Your task to perform on an android device: Open Wikipedia Image 0: 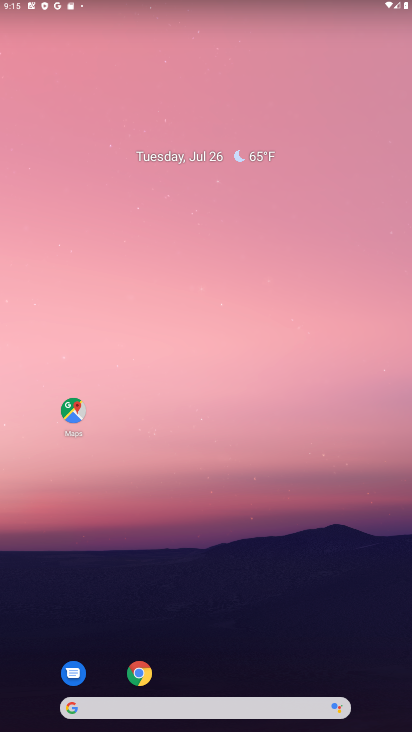
Step 0: click (143, 677)
Your task to perform on an android device: Open Wikipedia Image 1: 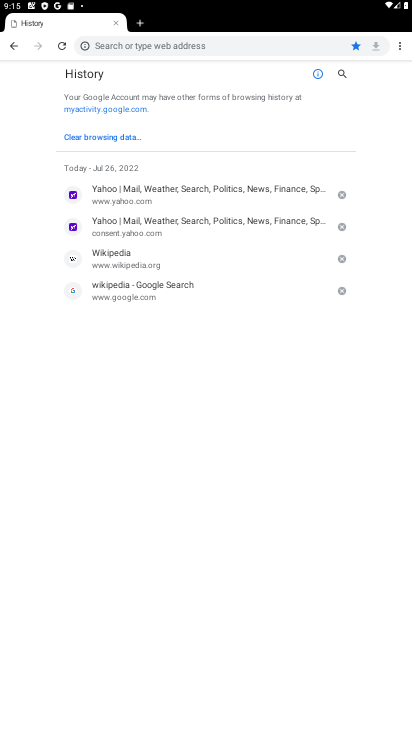
Step 1: click (146, 47)
Your task to perform on an android device: Open Wikipedia Image 2: 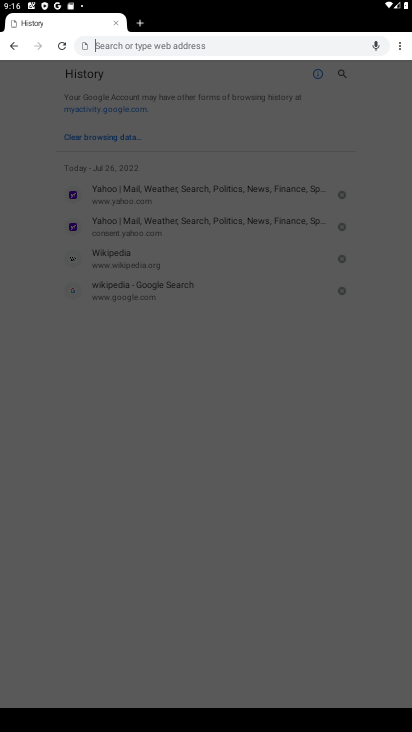
Step 2: type "wikipedia"
Your task to perform on an android device: Open Wikipedia Image 3: 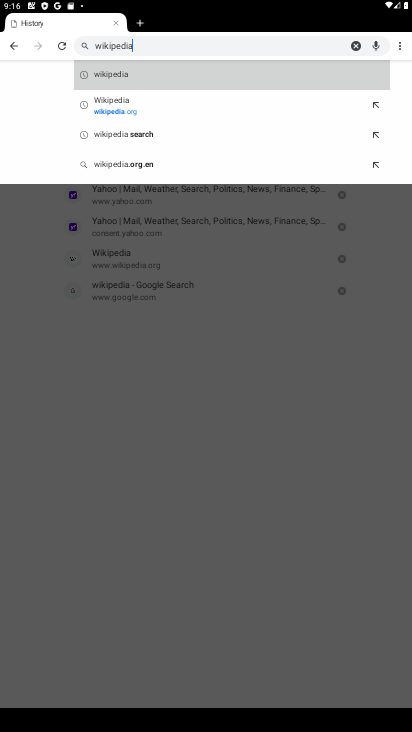
Step 3: click (108, 66)
Your task to perform on an android device: Open Wikipedia Image 4: 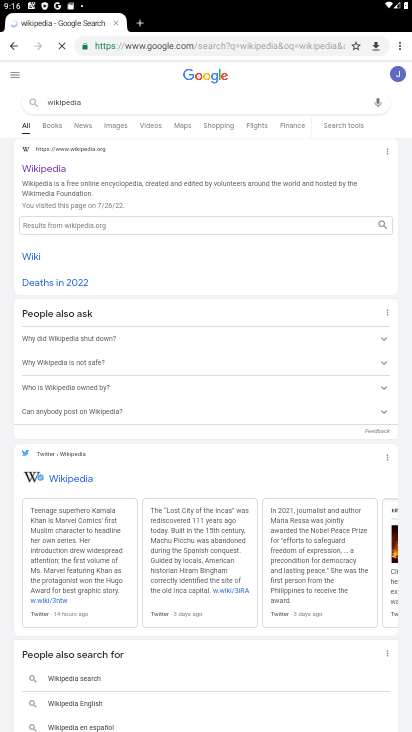
Step 4: click (41, 169)
Your task to perform on an android device: Open Wikipedia Image 5: 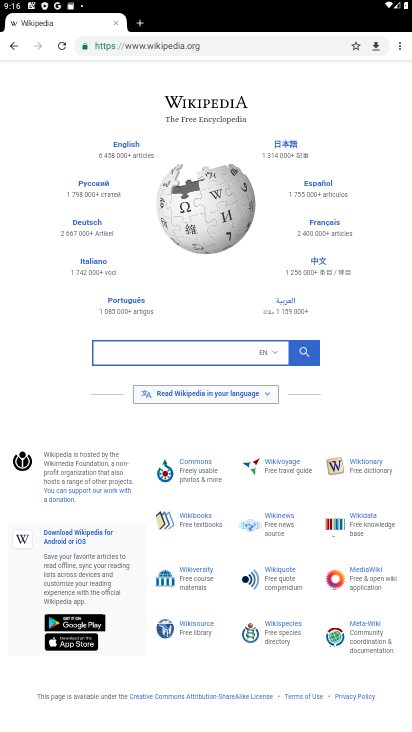
Step 5: task complete